Your task to perform on an android device: find snoozed emails in the gmail app Image 0: 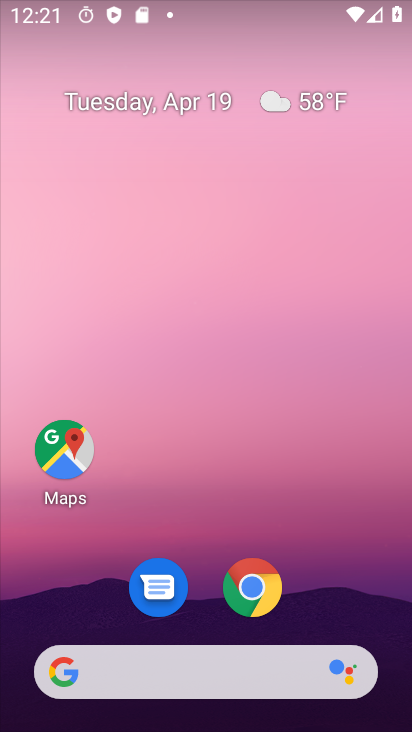
Step 0: click (376, 80)
Your task to perform on an android device: find snoozed emails in the gmail app Image 1: 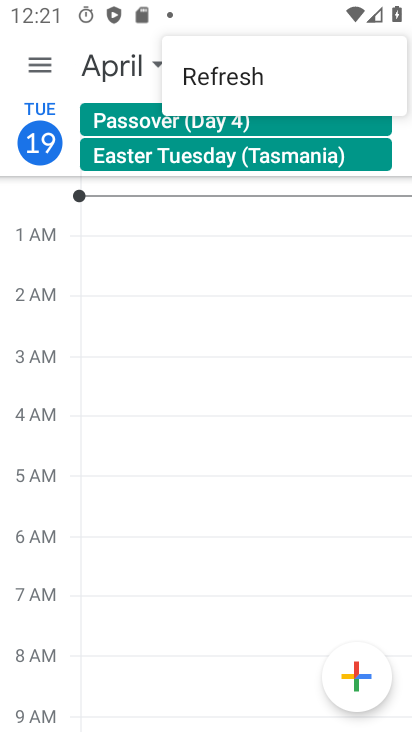
Step 1: press home button
Your task to perform on an android device: find snoozed emails in the gmail app Image 2: 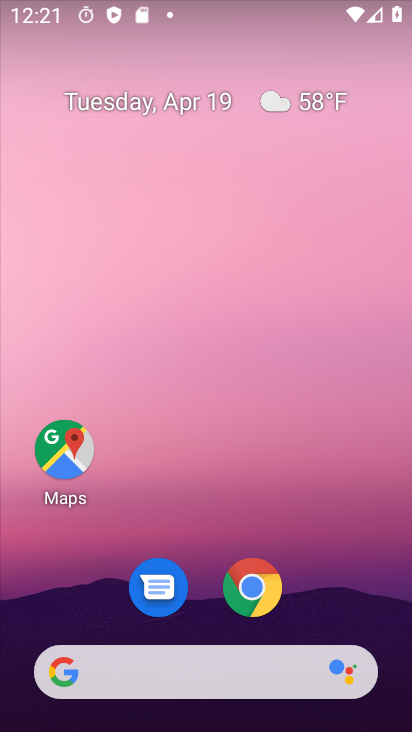
Step 2: drag from (360, 391) to (365, 68)
Your task to perform on an android device: find snoozed emails in the gmail app Image 3: 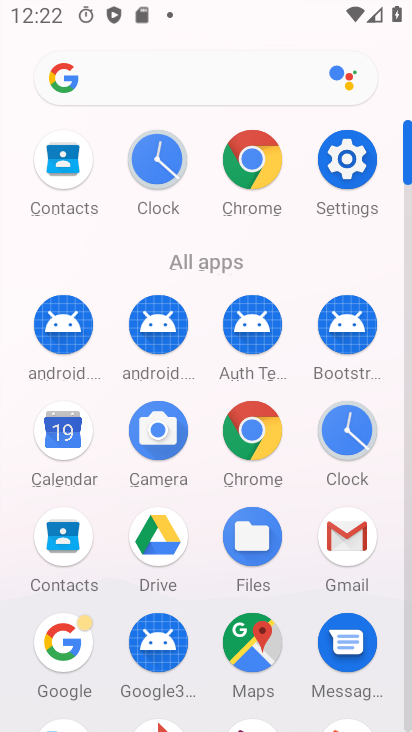
Step 3: click (344, 520)
Your task to perform on an android device: find snoozed emails in the gmail app Image 4: 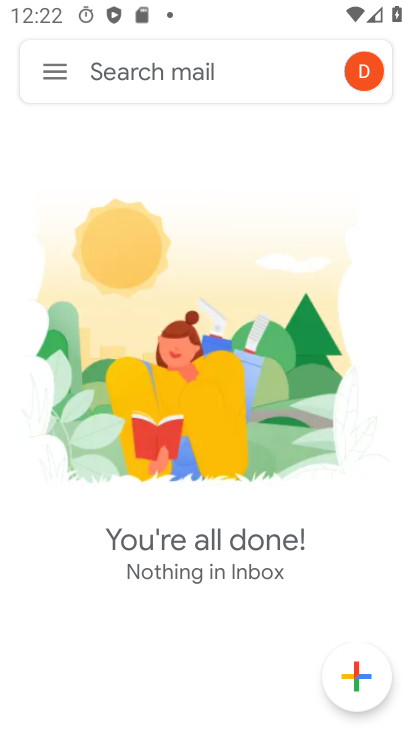
Step 4: click (50, 70)
Your task to perform on an android device: find snoozed emails in the gmail app Image 5: 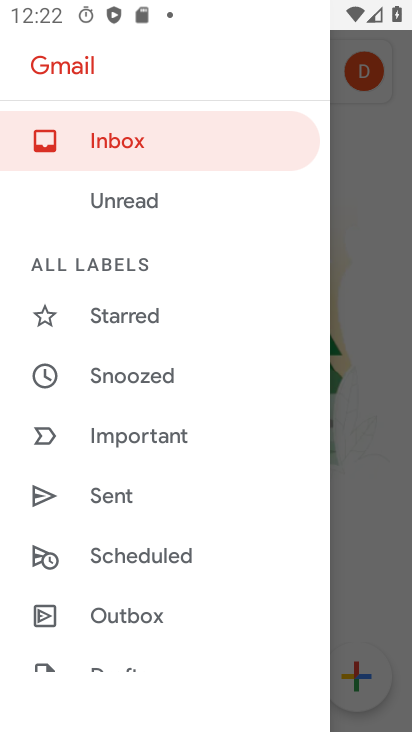
Step 5: drag from (206, 573) to (186, 253)
Your task to perform on an android device: find snoozed emails in the gmail app Image 6: 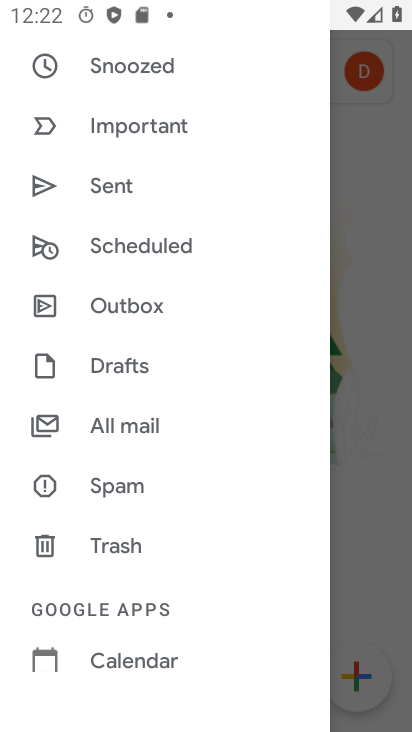
Step 6: click (153, 435)
Your task to perform on an android device: find snoozed emails in the gmail app Image 7: 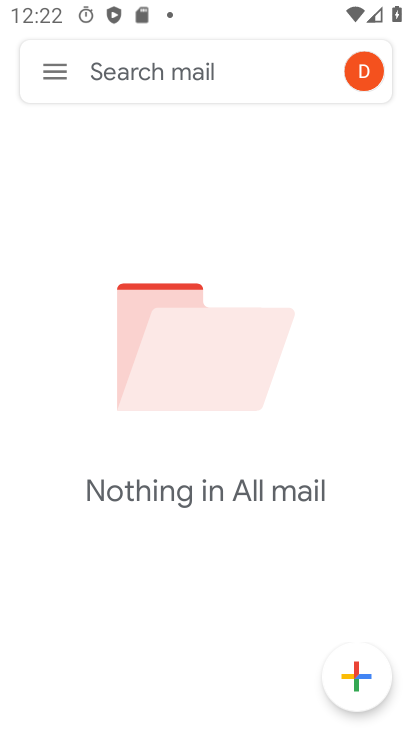
Step 7: task complete